Your task to perform on an android device: find snoozed emails in the gmail app Image 0: 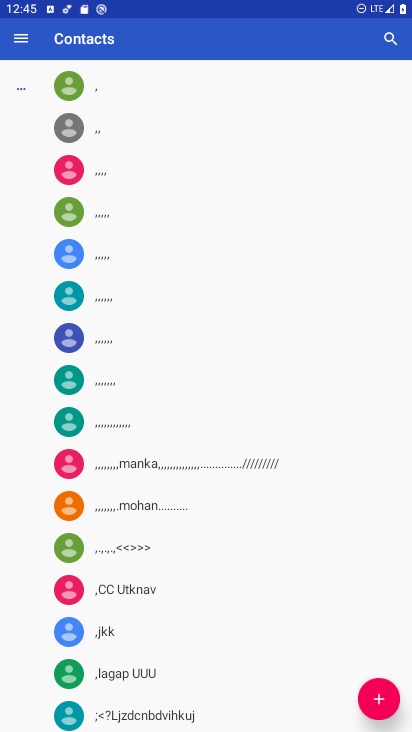
Step 0: press home button
Your task to perform on an android device: find snoozed emails in the gmail app Image 1: 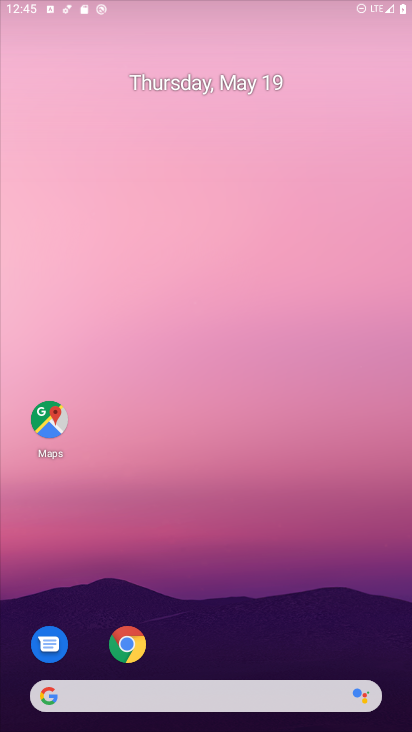
Step 1: drag from (329, 613) to (220, 57)
Your task to perform on an android device: find snoozed emails in the gmail app Image 2: 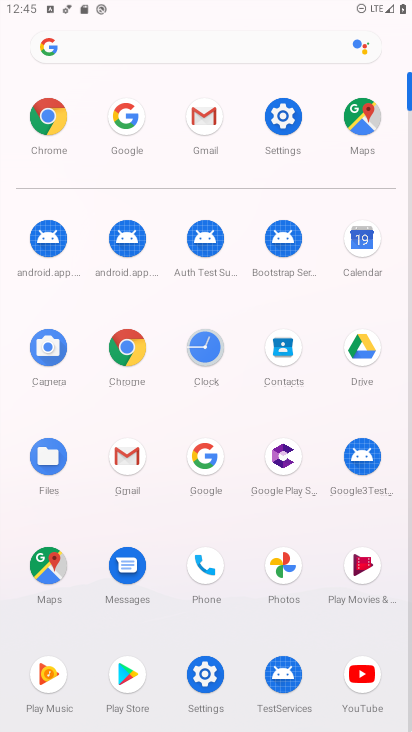
Step 2: click (134, 473)
Your task to perform on an android device: find snoozed emails in the gmail app Image 3: 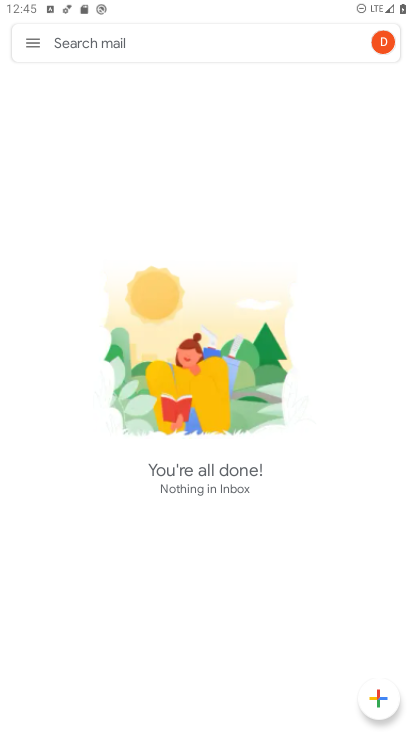
Step 3: click (26, 41)
Your task to perform on an android device: find snoozed emails in the gmail app Image 4: 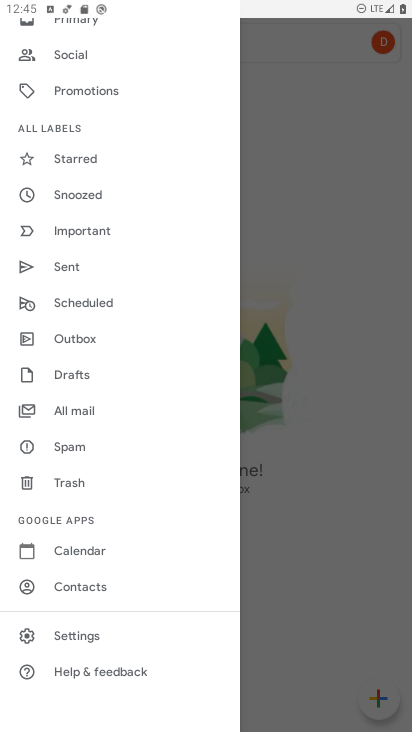
Step 4: click (99, 190)
Your task to perform on an android device: find snoozed emails in the gmail app Image 5: 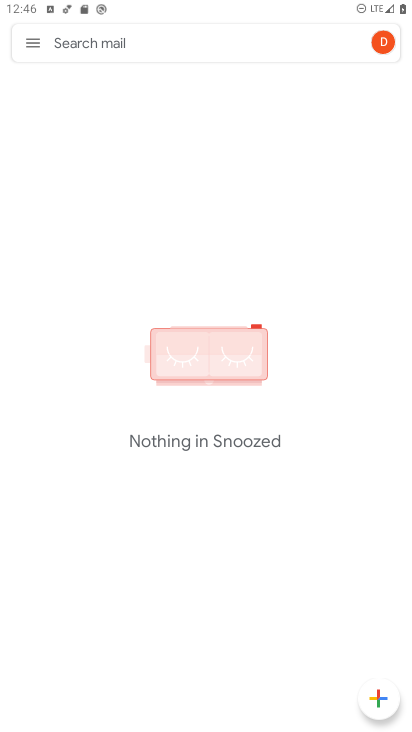
Step 5: task complete